Your task to perform on an android device: Open the web browser Image 0: 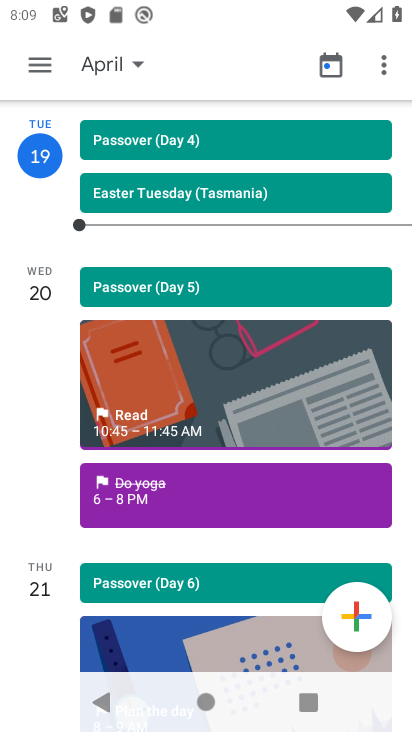
Step 0: press home button
Your task to perform on an android device: Open the web browser Image 1: 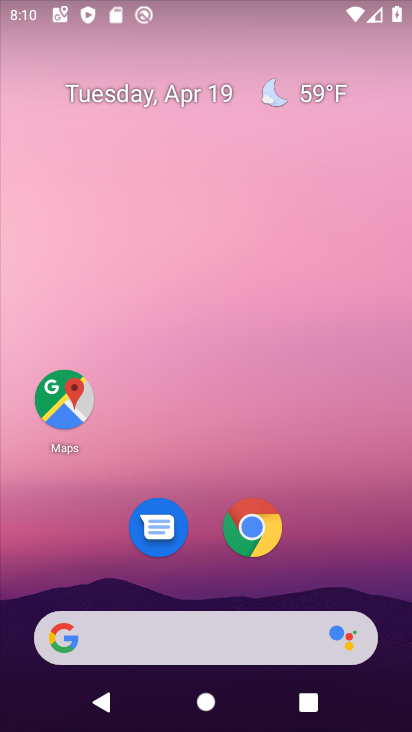
Step 1: drag from (193, 600) to (193, 219)
Your task to perform on an android device: Open the web browser Image 2: 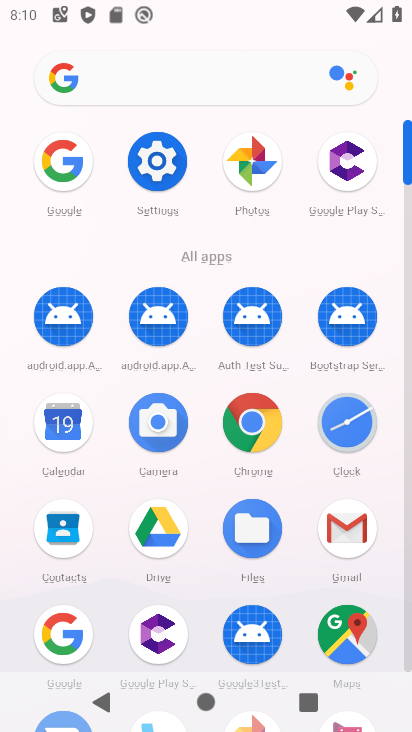
Step 2: click (245, 409)
Your task to perform on an android device: Open the web browser Image 3: 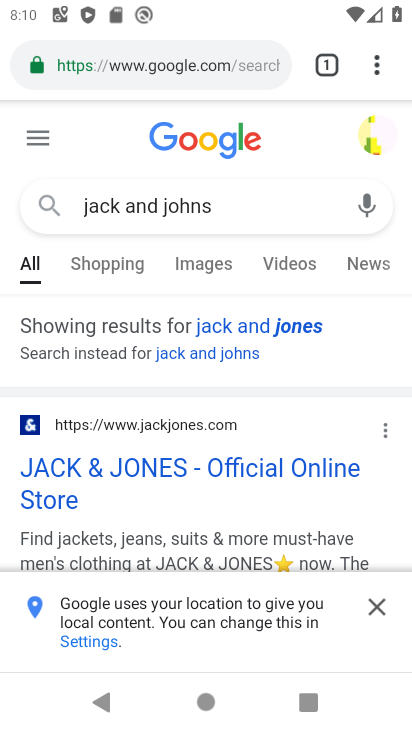
Step 3: task complete